Your task to perform on an android device: Open Google Chrome Image 0: 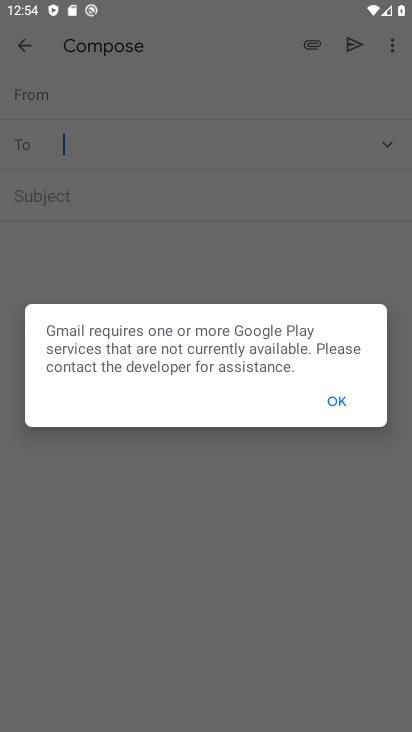
Step 0: press home button
Your task to perform on an android device: Open Google Chrome Image 1: 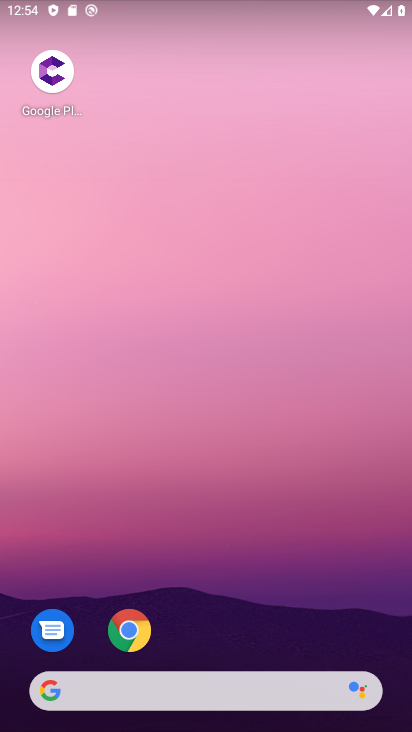
Step 1: click (138, 625)
Your task to perform on an android device: Open Google Chrome Image 2: 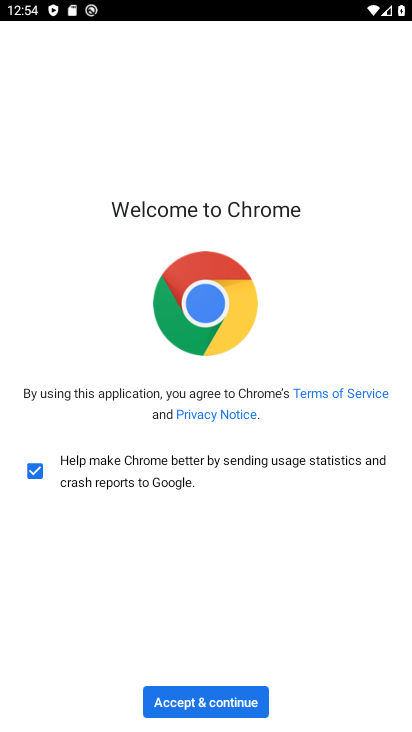
Step 2: click (228, 703)
Your task to perform on an android device: Open Google Chrome Image 3: 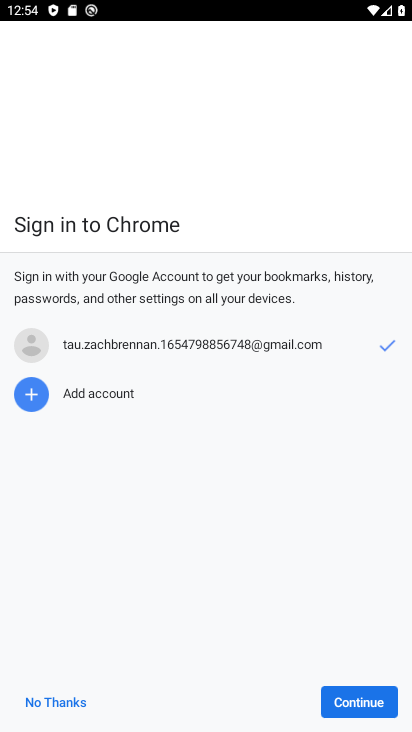
Step 3: click (351, 699)
Your task to perform on an android device: Open Google Chrome Image 4: 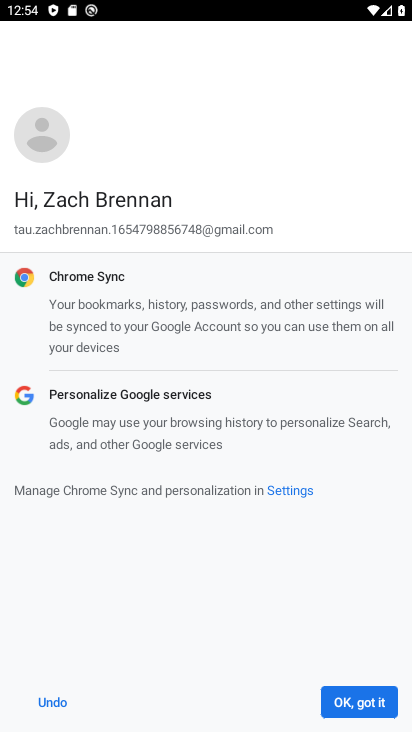
Step 4: click (351, 698)
Your task to perform on an android device: Open Google Chrome Image 5: 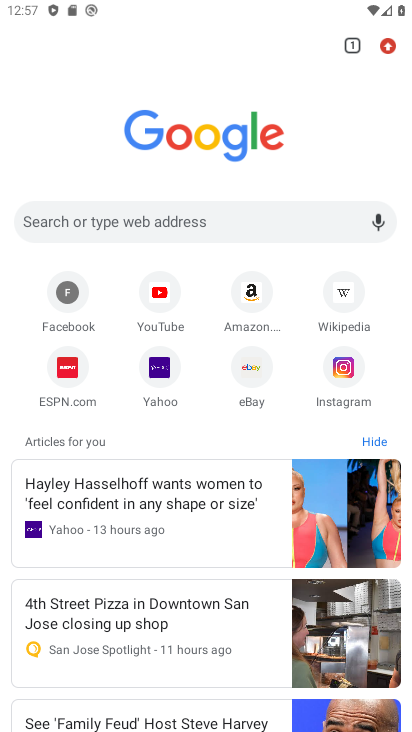
Step 5: task complete